Your task to perform on an android device: Go to Google maps Image 0: 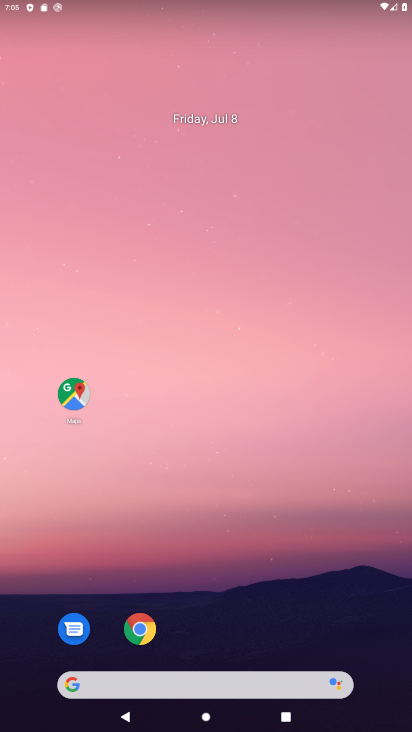
Step 0: click (73, 407)
Your task to perform on an android device: Go to Google maps Image 1: 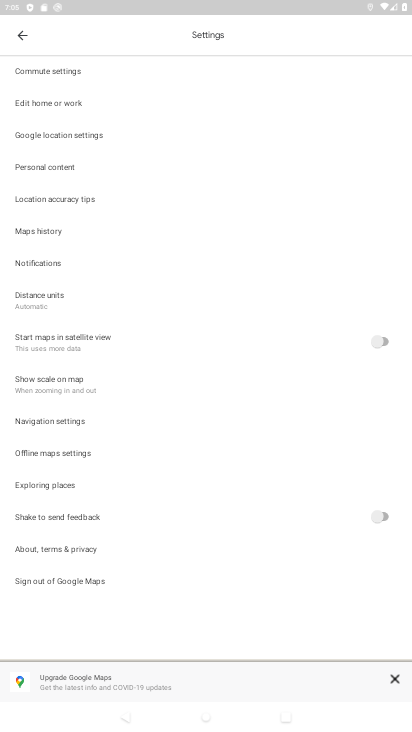
Step 1: task complete